Your task to perform on an android device: Open Android settings Image 0: 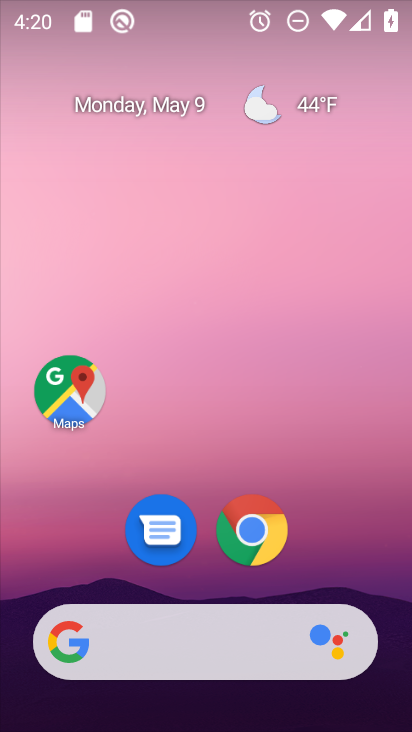
Step 0: drag from (207, 582) to (231, 20)
Your task to perform on an android device: Open Android settings Image 1: 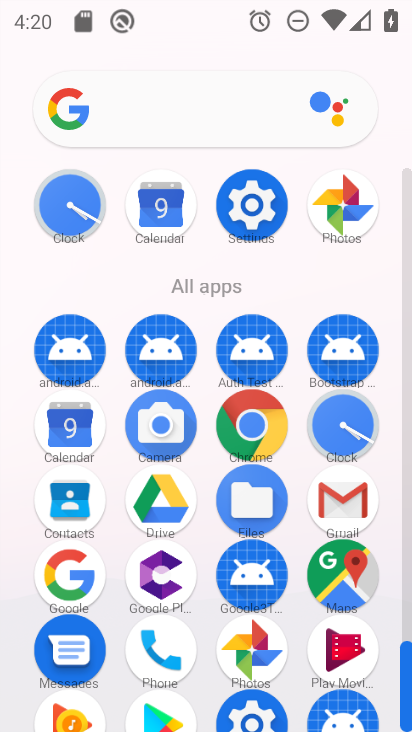
Step 1: click (253, 202)
Your task to perform on an android device: Open Android settings Image 2: 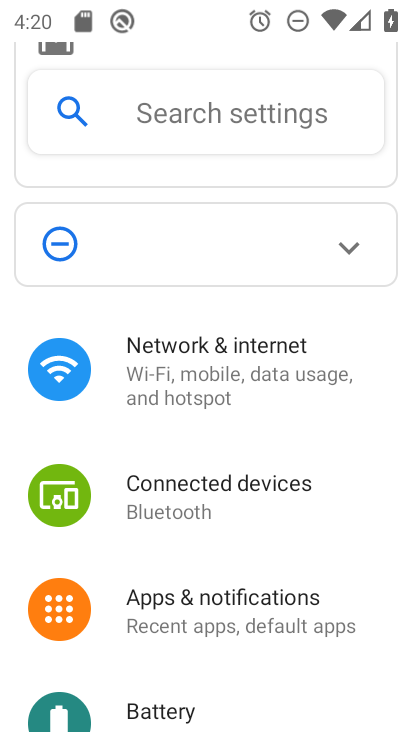
Step 2: drag from (209, 667) to (258, 97)
Your task to perform on an android device: Open Android settings Image 3: 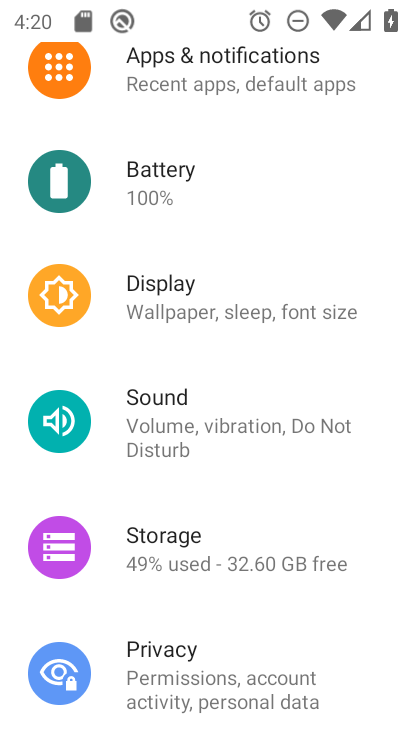
Step 3: drag from (209, 644) to (221, 399)
Your task to perform on an android device: Open Android settings Image 4: 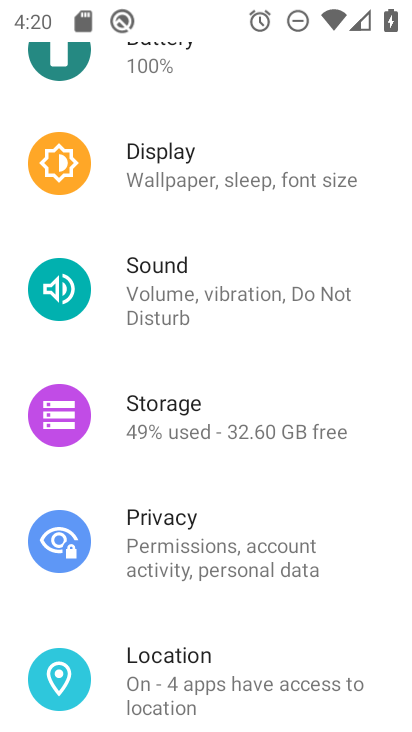
Step 4: drag from (228, 286) to (242, 89)
Your task to perform on an android device: Open Android settings Image 5: 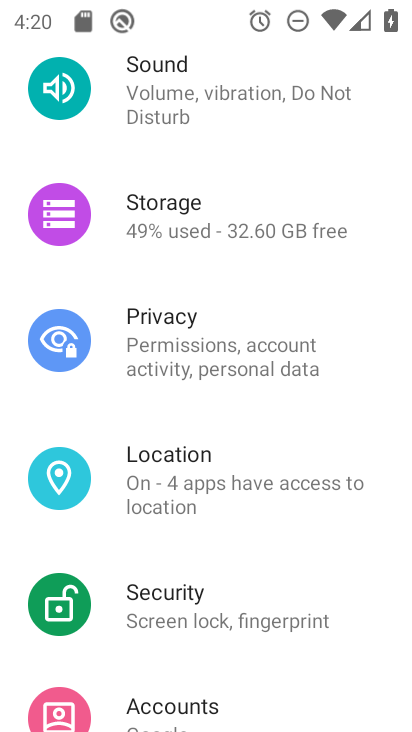
Step 5: drag from (196, 655) to (232, 78)
Your task to perform on an android device: Open Android settings Image 6: 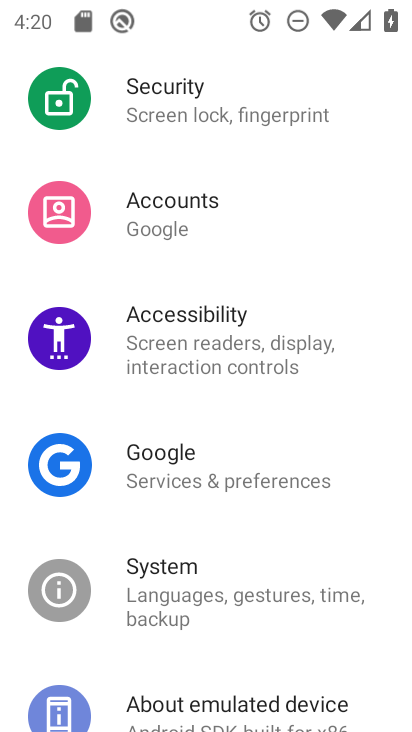
Step 6: click (241, 704)
Your task to perform on an android device: Open Android settings Image 7: 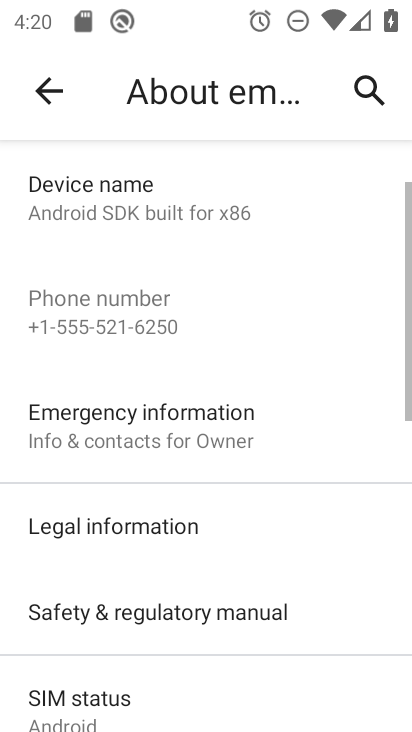
Step 7: drag from (209, 650) to (224, 152)
Your task to perform on an android device: Open Android settings Image 8: 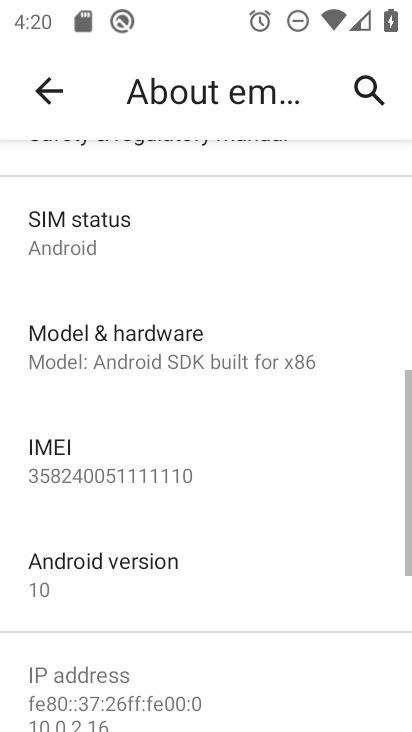
Step 8: click (109, 590)
Your task to perform on an android device: Open Android settings Image 9: 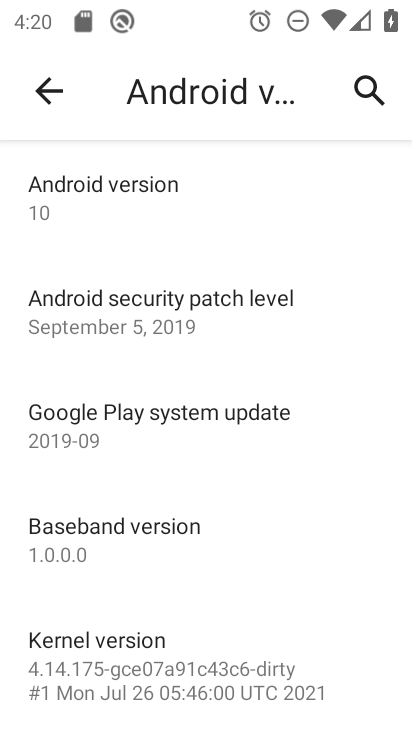
Step 9: drag from (223, 630) to (219, 260)
Your task to perform on an android device: Open Android settings Image 10: 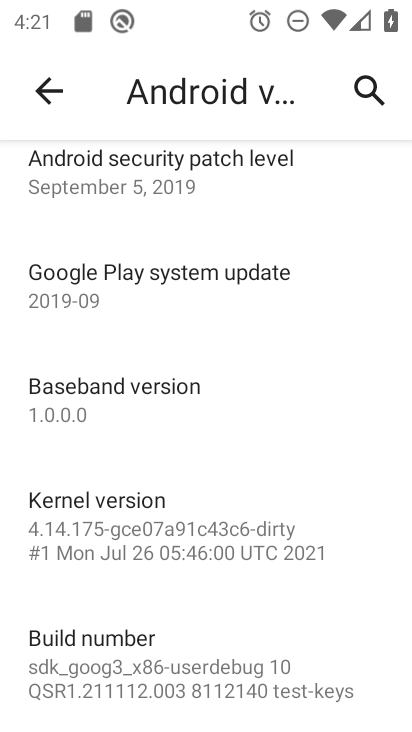
Step 10: drag from (223, 632) to (216, 284)
Your task to perform on an android device: Open Android settings Image 11: 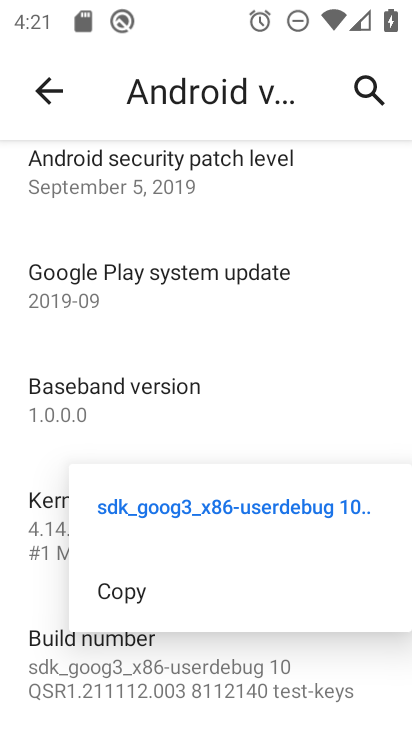
Step 11: click (247, 324)
Your task to perform on an android device: Open Android settings Image 12: 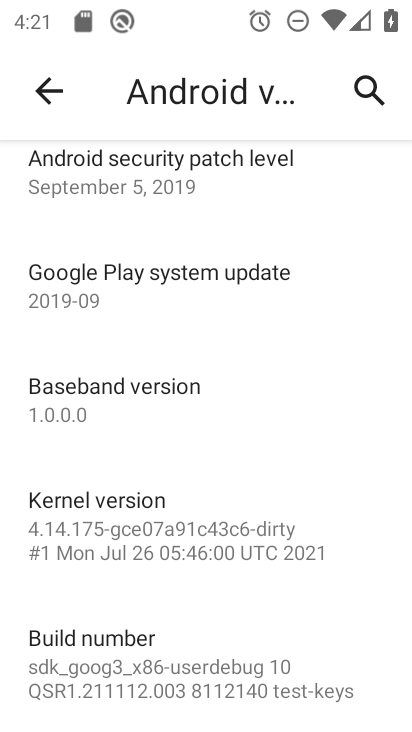
Step 12: task complete